Your task to perform on an android device: manage bookmarks in the chrome app Image 0: 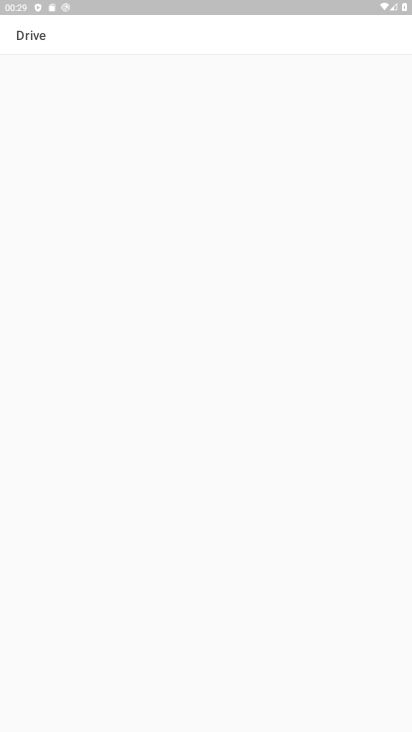
Step 0: press home button
Your task to perform on an android device: manage bookmarks in the chrome app Image 1: 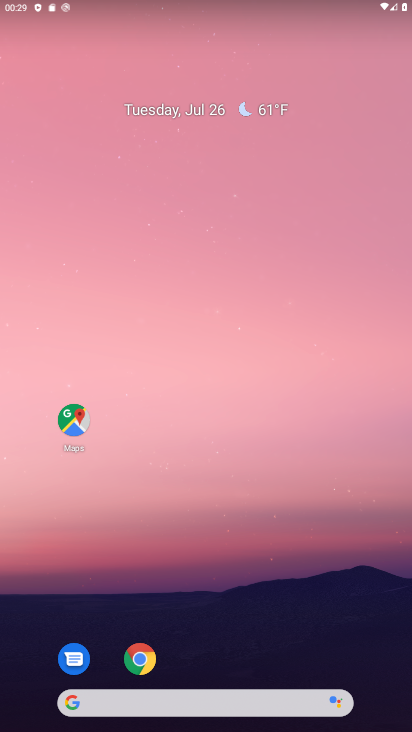
Step 1: drag from (346, 632) to (309, 0)
Your task to perform on an android device: manage bookmarks in the chrome app Image 2: 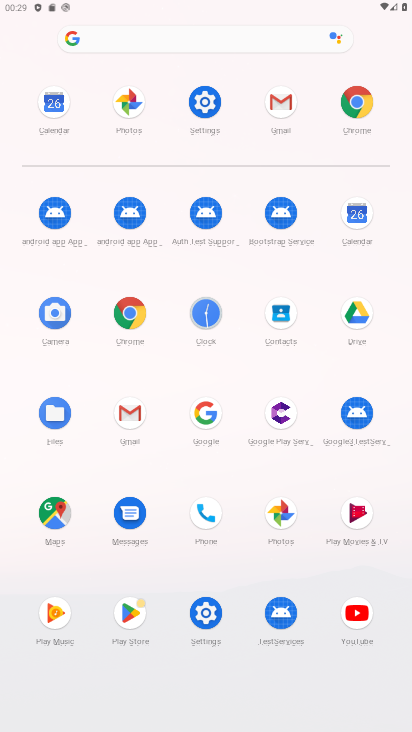
Step 2: click (128, 310)
Your task to perform on an android device: manage bookmarks in the chrome app Image 3: 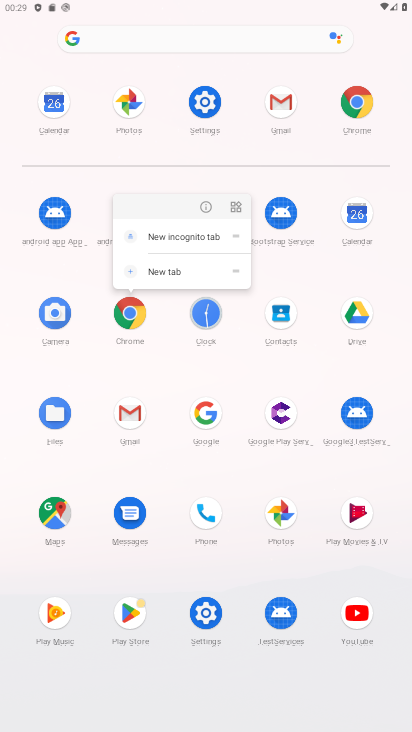
Step 3: click (131, 314)
Your task to perform on an android device: manage bookmarks in the chrome app Image 4: 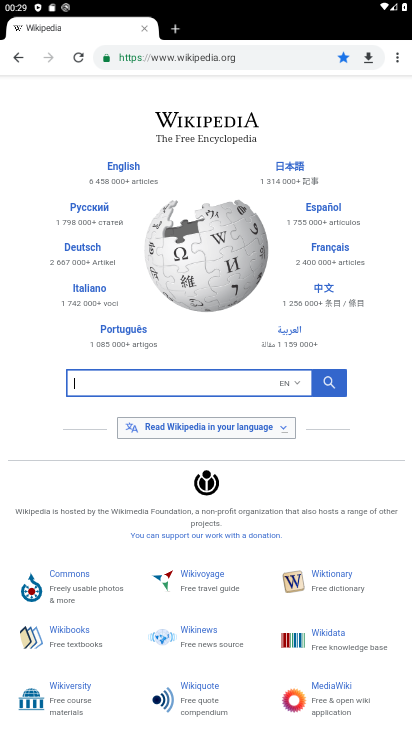
Step 4: drag from (397, 54) to (299, 117)
Your task to perform on an android device: manage bookmarks in the chrome app Image 5: 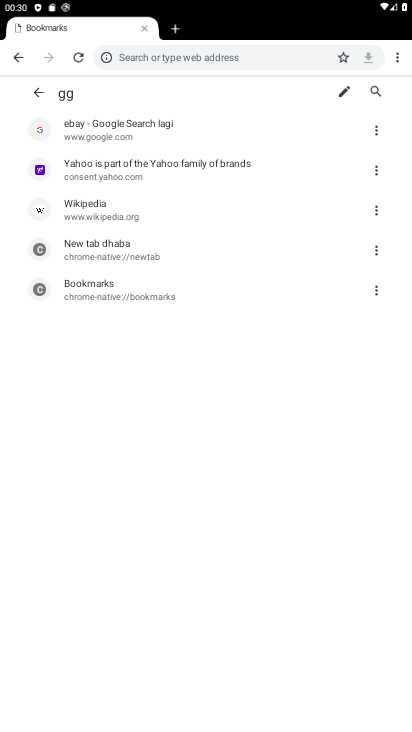
Step 5: click (374, 200)
Your task to perform on an android device: manage bookmarks in the chrome app Image 6: 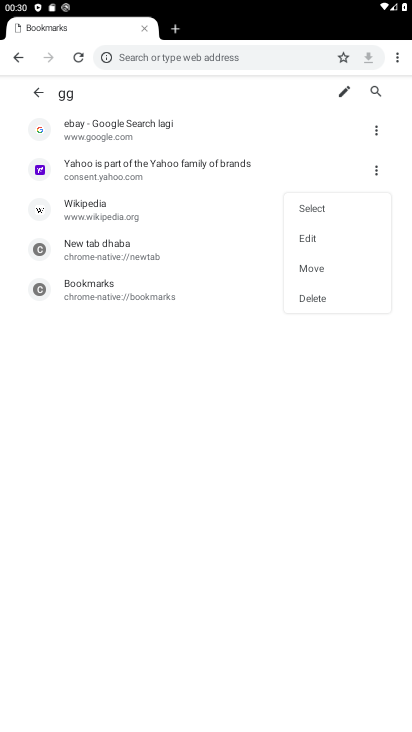
Step 6: click (305, 302)
Your task to perform on an android device: manage bookmarks in the chrome app Image 7: 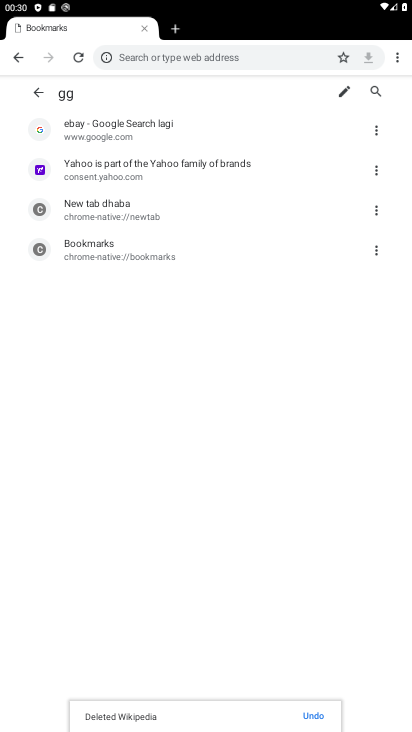
Step 7: task complete